Your task to perform on an android device: add a label to a message in the gmail app Image 0: 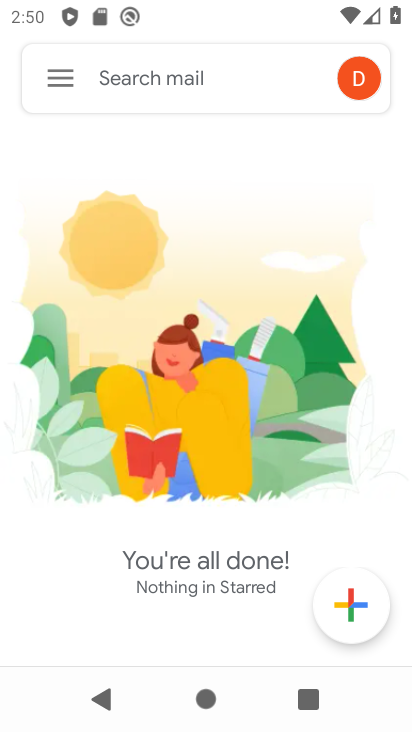
Step 0: press home button
Your task to perform on an android device: add a label to a message in the gmail app Image 1: 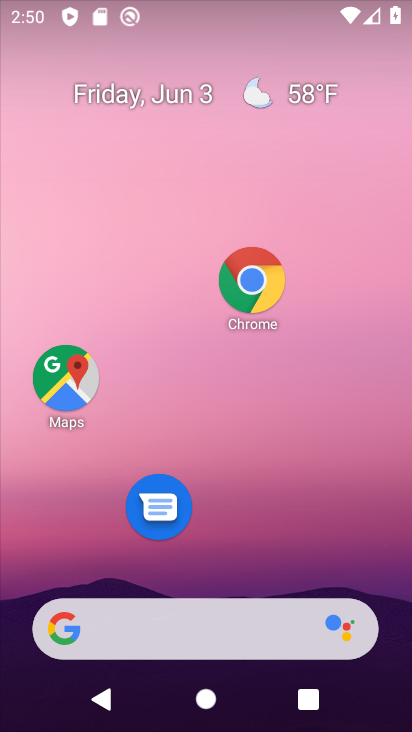
Step 1: drag from (233, 550) to (271, 70)
Your task to perform on an android device: add a label to a message in the gmail app Image 2: 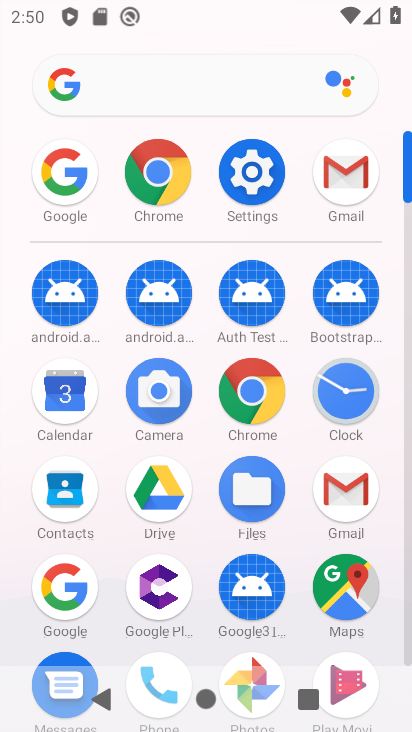
Step 2: click (343, 481)
Your task to perform on an android device: add a label to a message in the gmail app Image 3: 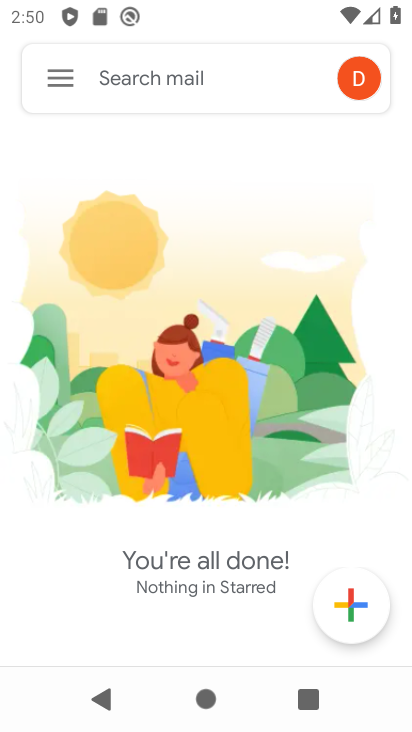
Step 3: click (54, 81)
Your task to perform on an android device: add a label to a message in the gmail app Image 4: 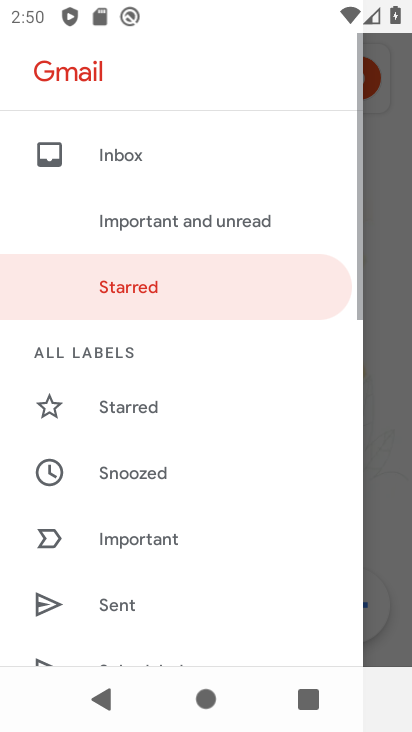
Step 4: drag from (183, 517) to (182, 114)
Your task to perform on an android device: add a label to a message in the gmail app Image 5: 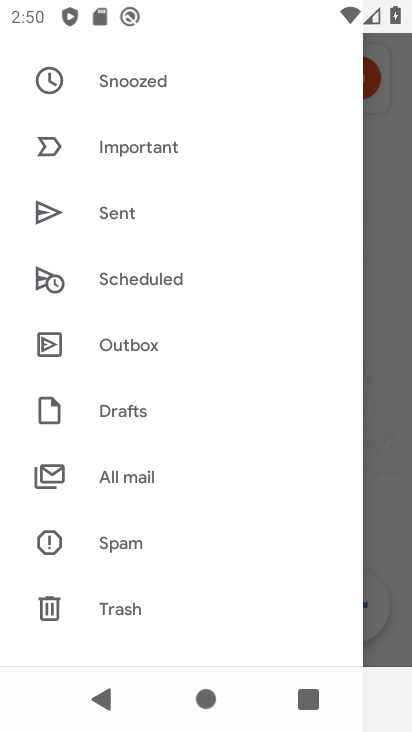
Step 5: click (138, 487)
Your task to perform on an android device: add a label to a message in the gmail app Image 6: 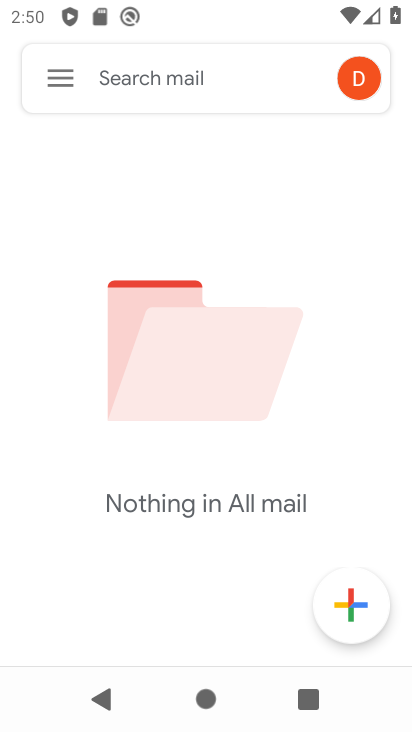
Step 6: task complete